Your task to perform on an android device: Turn on the flashlight Image 0: 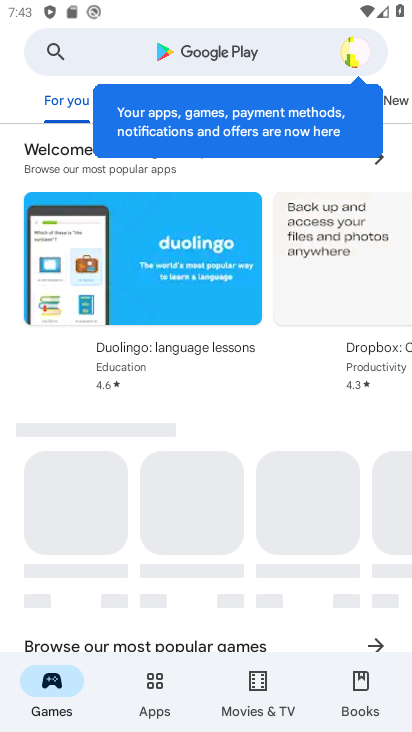
Step 0: press home button
Your task to perform on an android device: Turn on the flashlight Image 1: 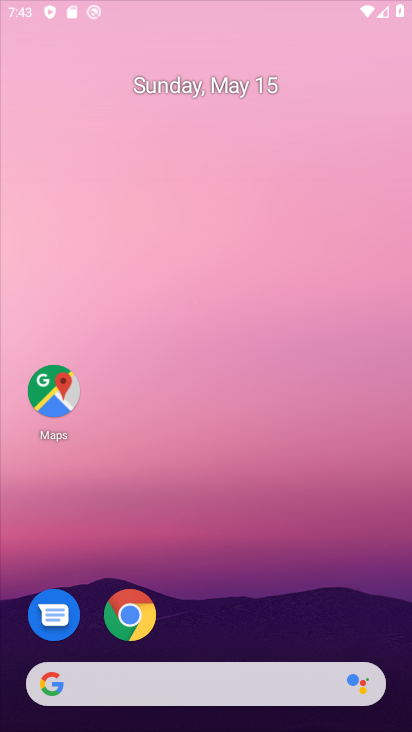
Step 1: drag from (246, 696) to (241, 255)
Your task to perform on an android device: Turn on the flashlight Image 2: 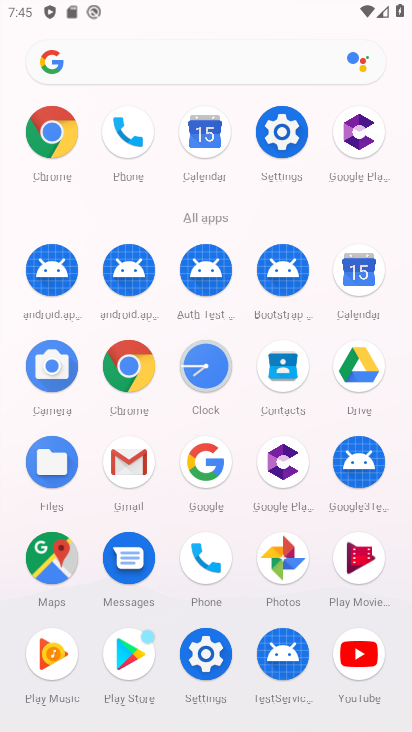
Step 2: click (274, 146)
Your task to perform on an android device: Turn on the flashlight Image 3: 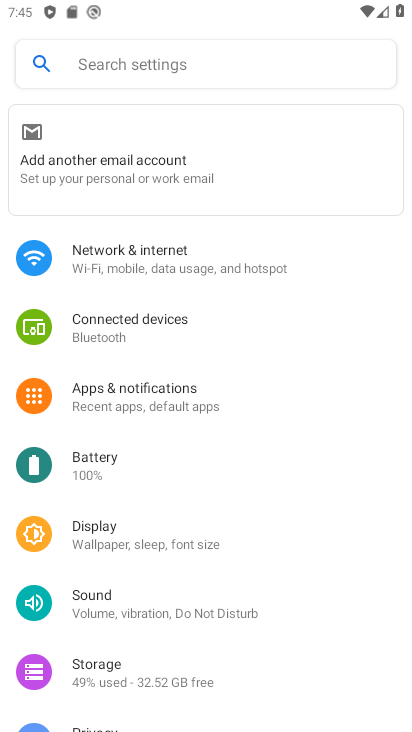
Step 3: click (169, 70)
Your task to perform on an android device: Turn on the flashlight Image 4: 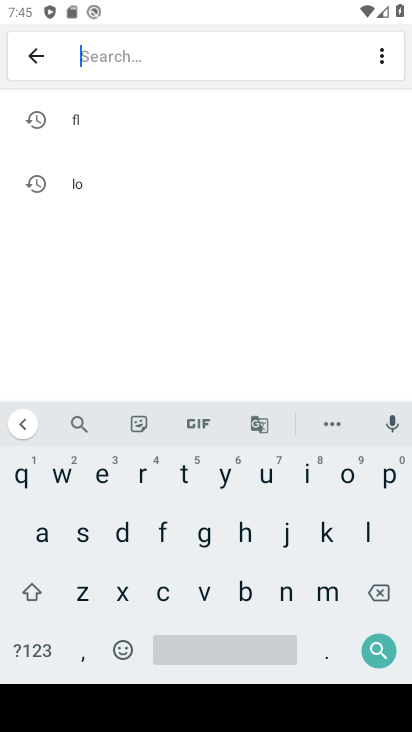
Step 4: click (167, 529)
Your task to perform on an android device: Turn on the flashlight Image 5: 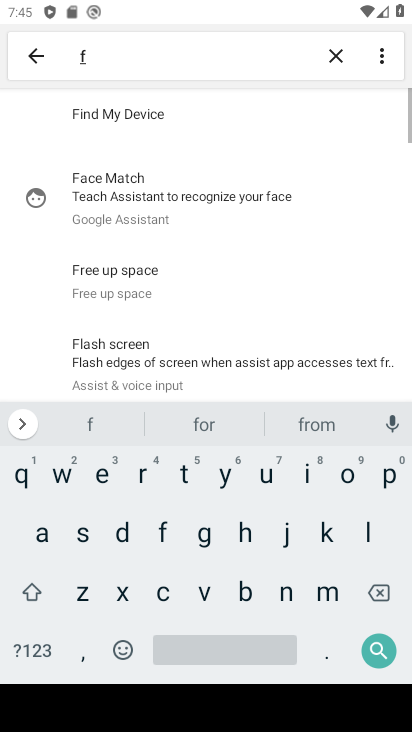
Step 5: click (360, 538)
Your task to perform on an android device: Turn on the flashlight Image 6: 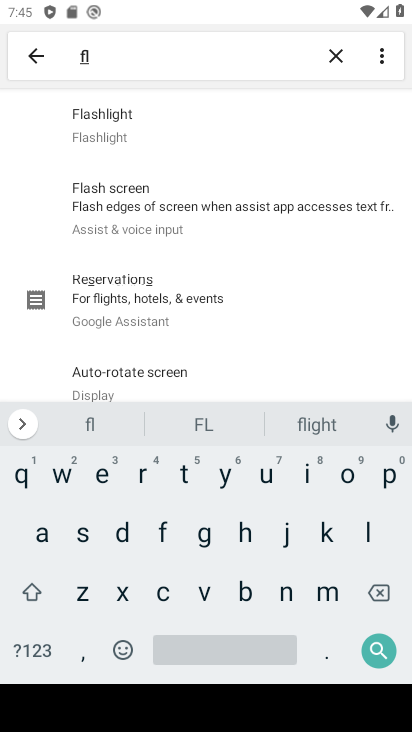
Step 6: click (149, 139)
Your task to perform on an android device: Turn on the flashlight Image 7: 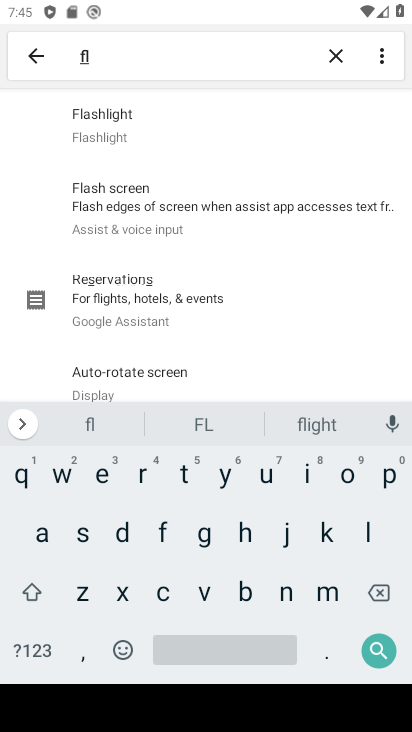
Step 7: task complete